Your task to perform on an android device: read, delete, or share a saved page in the chrome app Image 0: 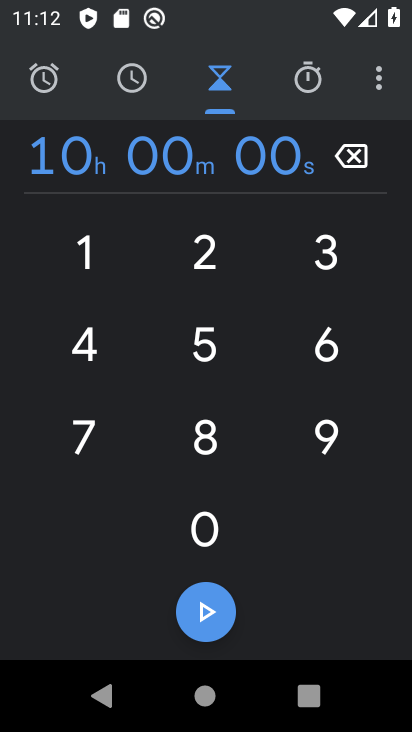
Step 0: press home button
Your task to perform on an android device: read, delete, or share a saved page in the chrome app Image 1: 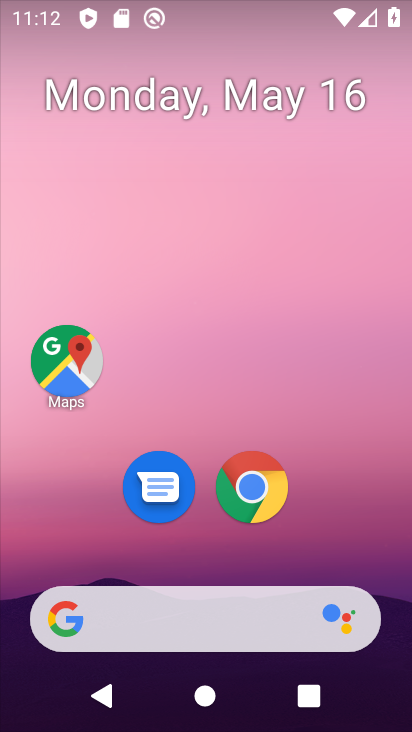
Step 1: click (242, 502)
Your task to perform on an android device: read, delete, or share a saved page in the chrome app Image 2: 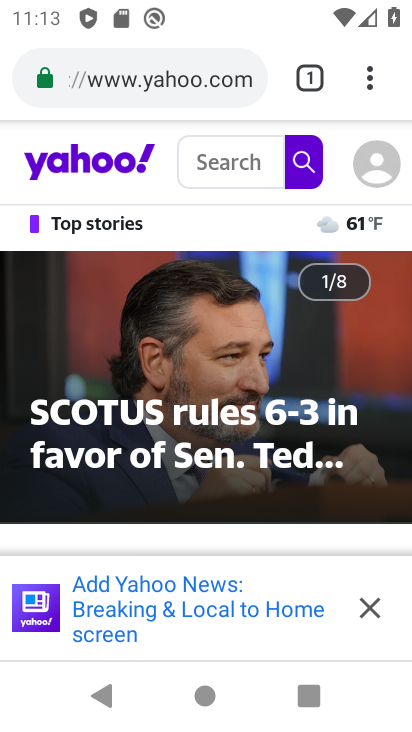
Step 2: task complete